Your task to perform on an android device: turn off location history Image 0: 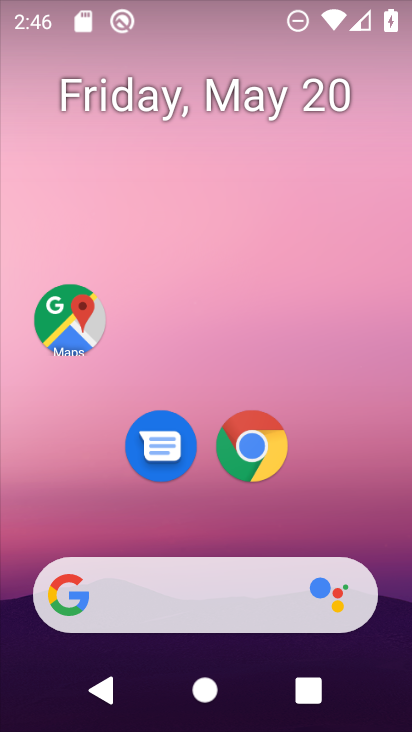
Step 0: click (72, 320)
Your task to perform on an android device: turn off location history Image 1: 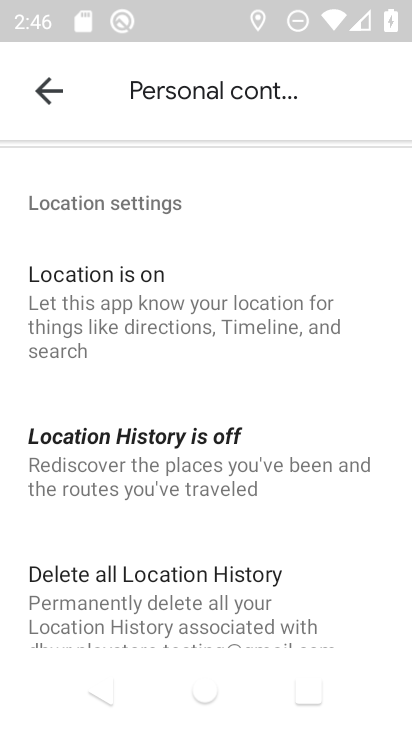
Step 1: click (153, 449)
Your task to perform on an android device: turn off location history Image 2: 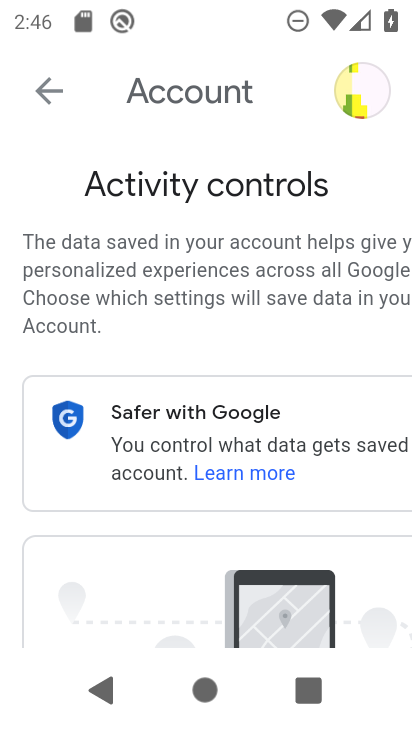
Step 2: task complete